Your task to perform on an android device: open wifi settings Image 0: 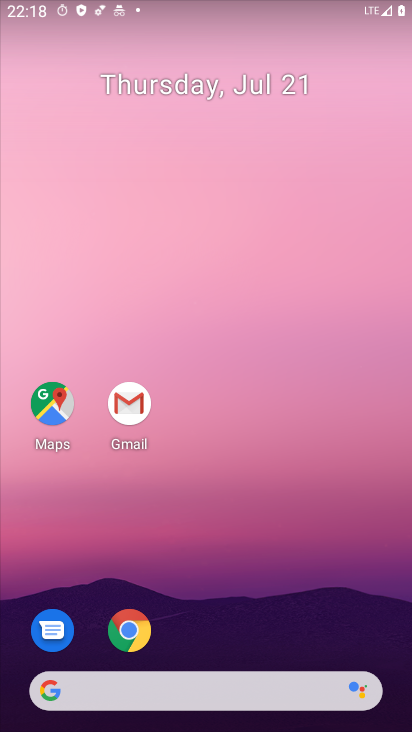
Step 0: drag from (122, 48) to (248, 11)
Your task to perform on an android device: open wifi settings Image 1: 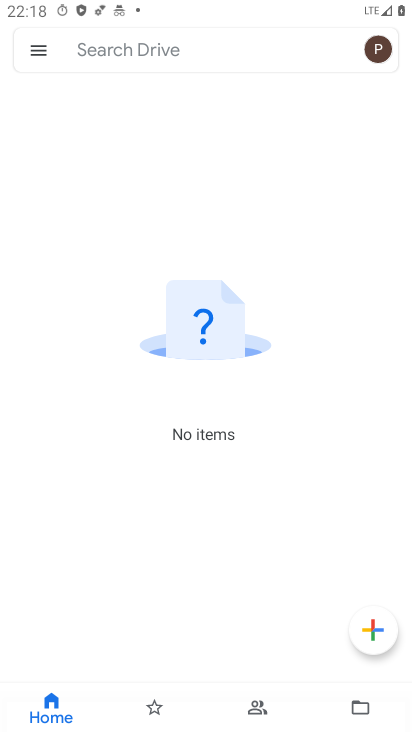
Step 1: press back button
Your task to perform on an android device: open wifi settings Image 2: 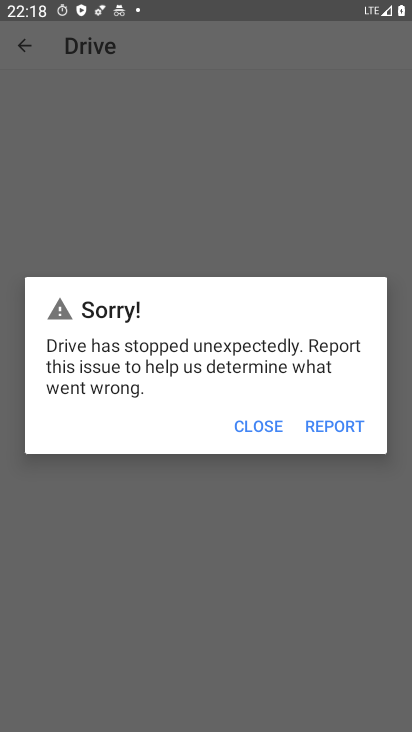
Step 2: click (249, 423)
Your task to perform on an android device: open wifi settings Image 3: 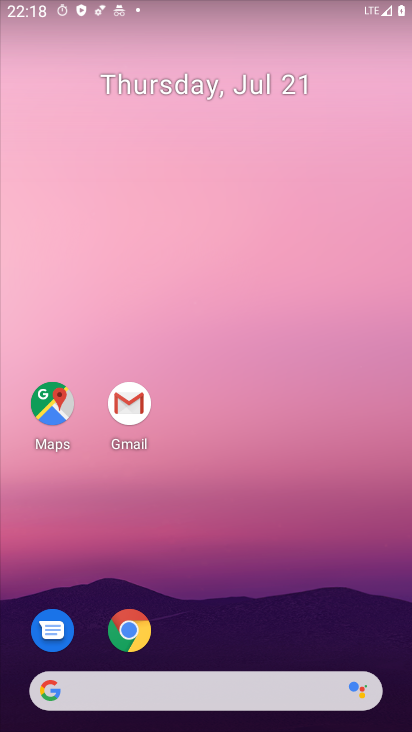
Step 3: drag from (233, 645) to (166, 38)
Your task to perform on an android device: open wifi settings Image 4: 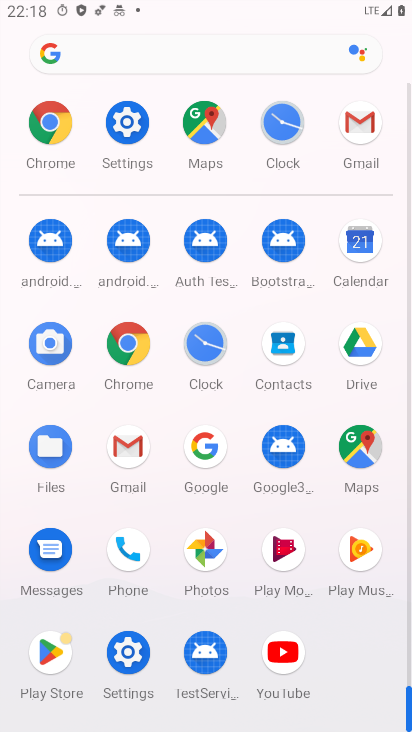
Step 4: click (121, 113)
Your task to perform on an android device: open wifi settings Image 5: 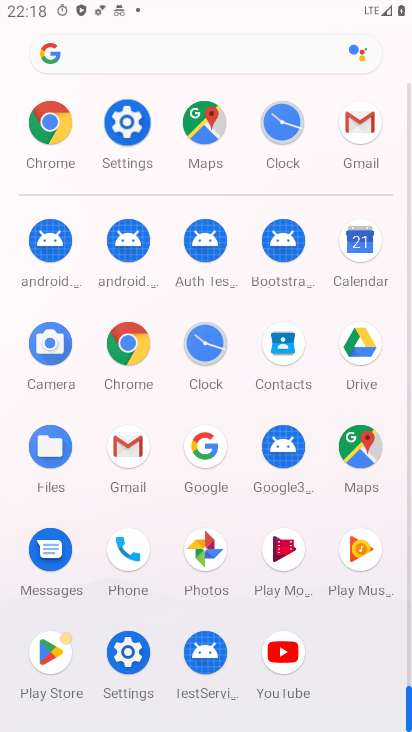
Step 5: click (120, 113)
Your task to perform on an android device: open wifi settings Image 6: 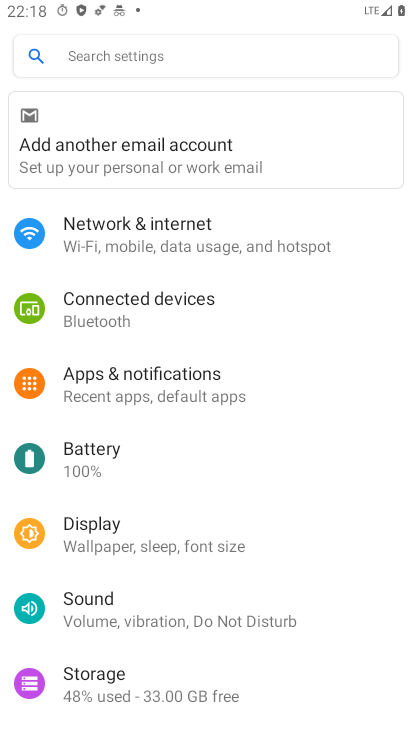
Step 6: click (112, 224)
Your task to perform on an android device: open wifi settings Image 7: 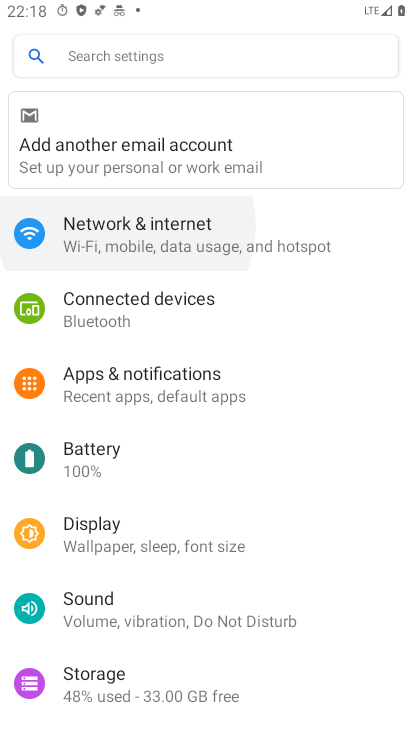
Step 7: click (115, 225)
Your task to perform on an android device: open wifi settings Image 8: 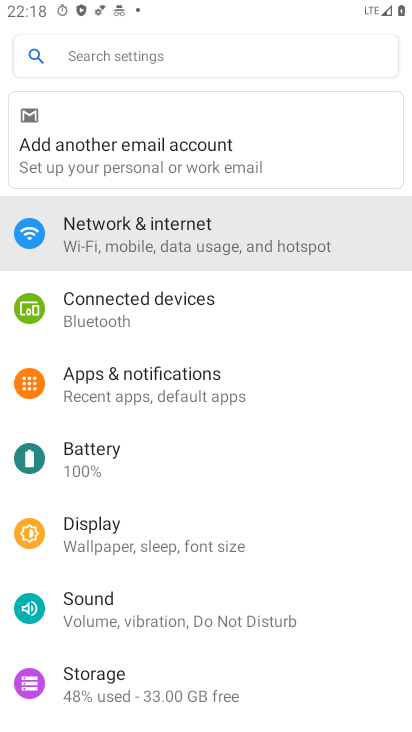
Step 8: click (123, 237)
Your task to perform on an android device: open wifi settings Image 9: 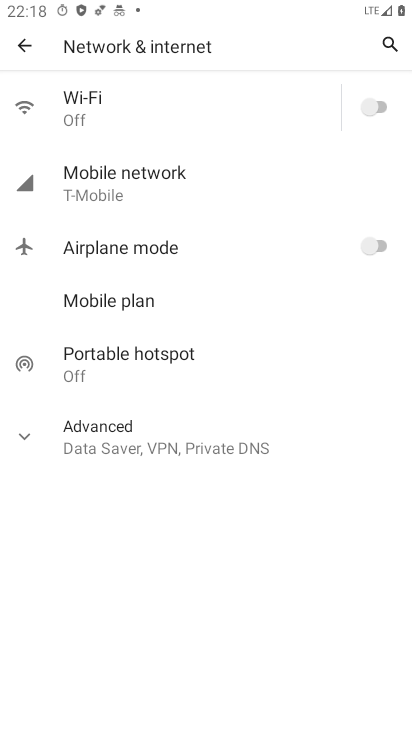
Step 9: task complete